Your task to perform on an android device: Search for pizza restaurants on Maps Image 0: 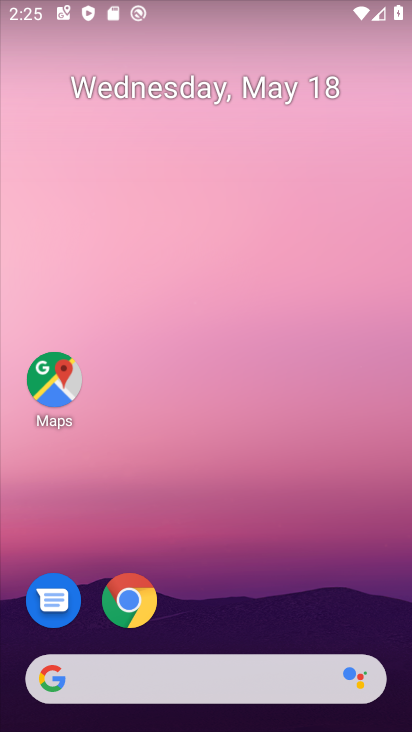
Step 0: click (45, 355)
Your task to perform on an android device: Search for pizza restaurants on Maps Image 1: 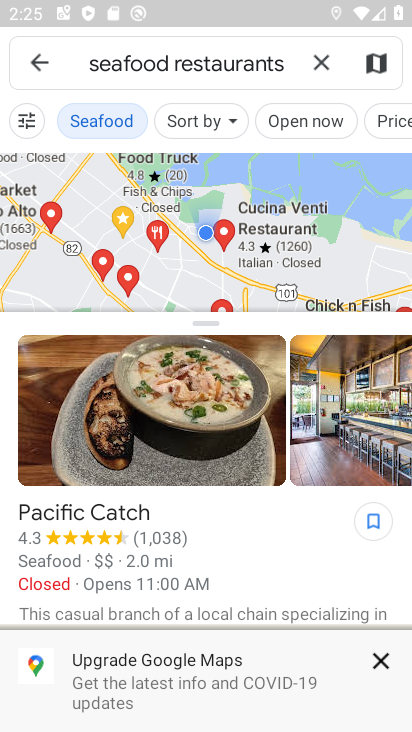
Step 1: click (325, 55)
Your task to perform on an android device: Search for pizza restaurants on Maps Image 2: 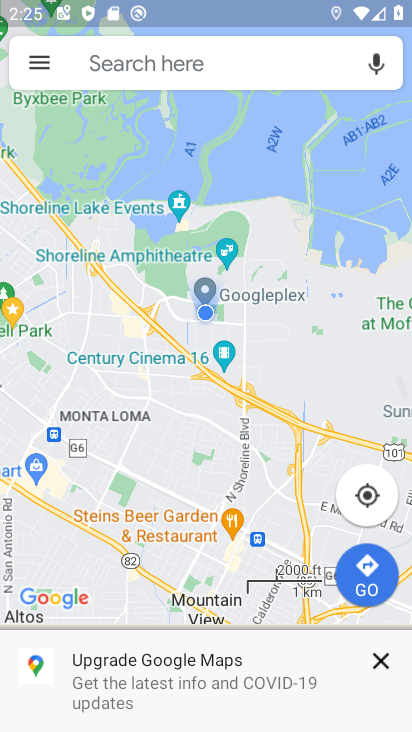
Step 2: click (207, 63)
Your task to perform on an android device: Search for pizza restaurants on Maps Image 3: 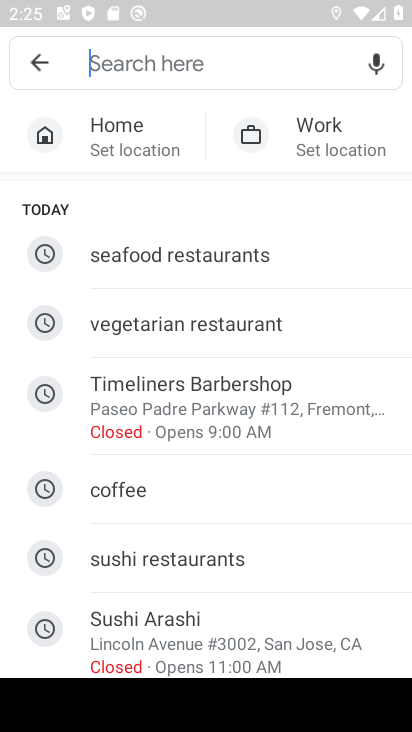
Step 3: type "pizza restaurants"
Your task to perform on an android device: Search for pizza restaurants on Maps Image 4: 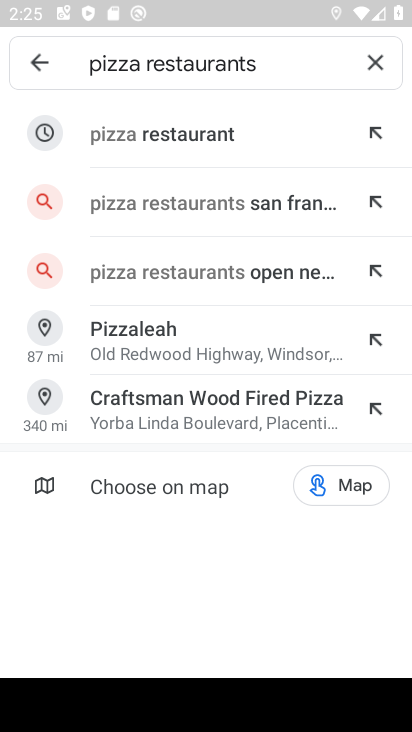
Step 4: click (176, 145)
Your task to perform on an android device: Search for pizza restaurants on Maps Image 5: 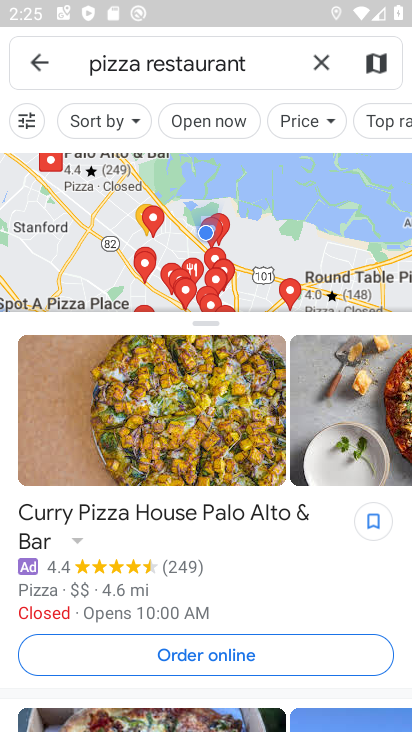
Step 5: task complete